Your task to perform on an android device: show emergency info Image 0: 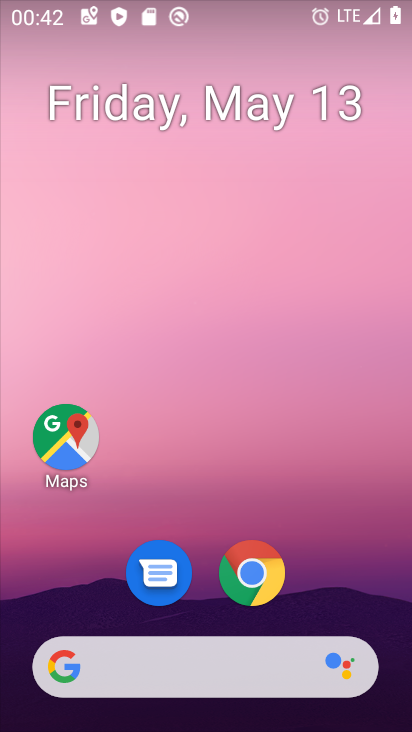
Step 0: drag from (189, 597) to (269, 74)
Your task to perform on an android device: show emergency info Image 1: 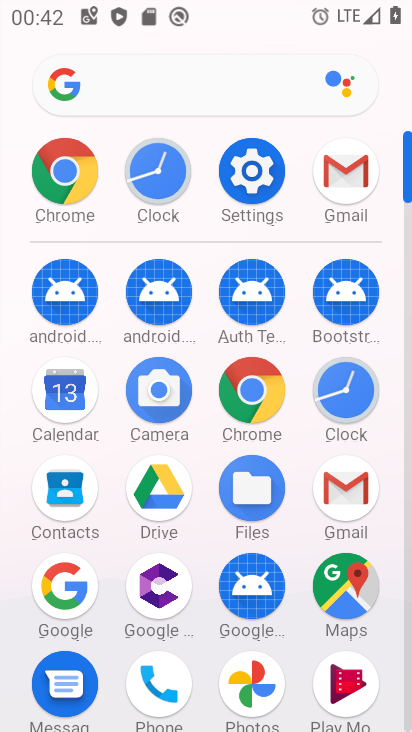
Step 1: click (261, 180)
Your task to perform on an android device: show emergency info Image 2: 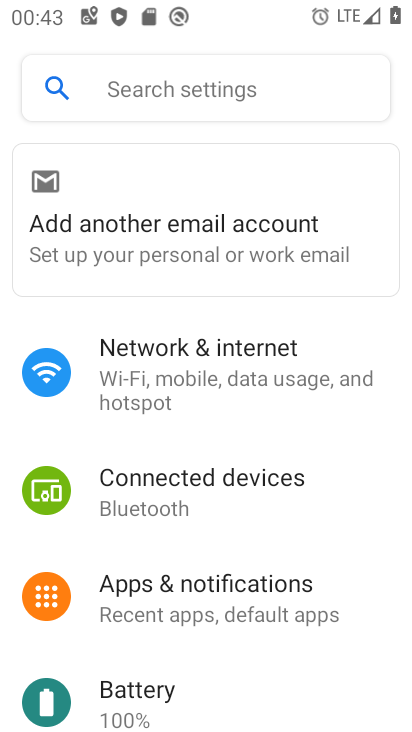
Step 2: drag from (193, 653) to (175, 109)
Your task to perform on an android device: show emergency info Image 3: 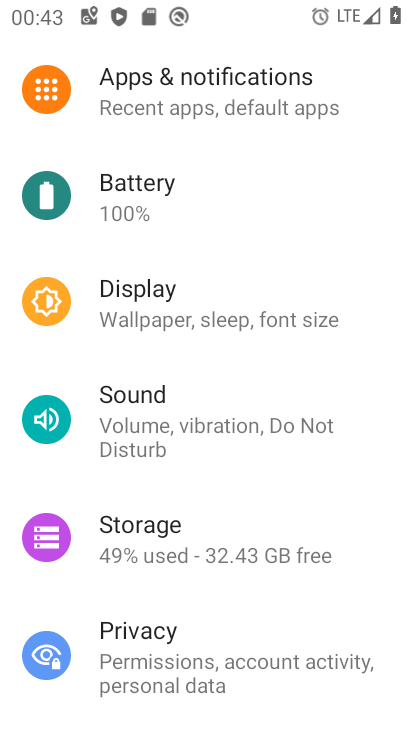
Step 3: drag from (215, 673) to (184, 98)
Your task to perform on an android device: show emergency info Image 4: 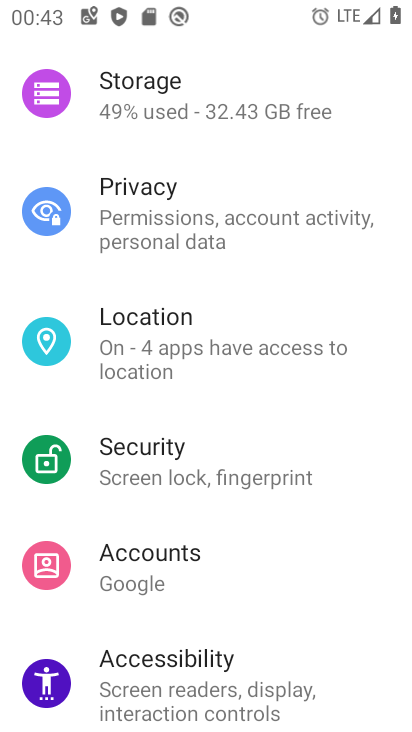
Step 4: drag from (185, 644) to (165, 8)
Your task to perform on an android device: show emergency info Image 5: 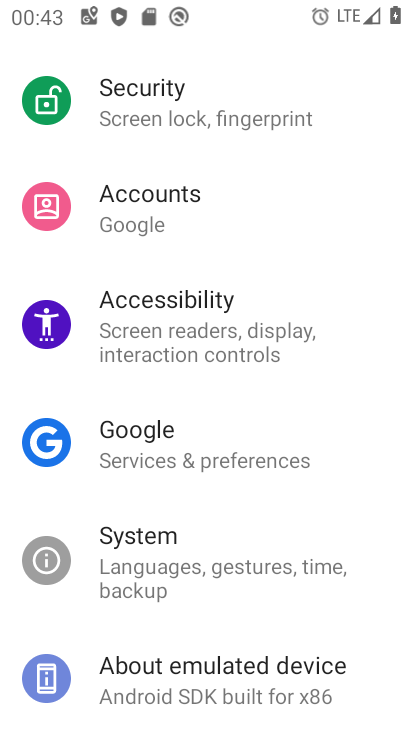
Step 5: drag from (98, 665) to (183, 177)
Your task to perform on an android device: show emergency info Image 6: 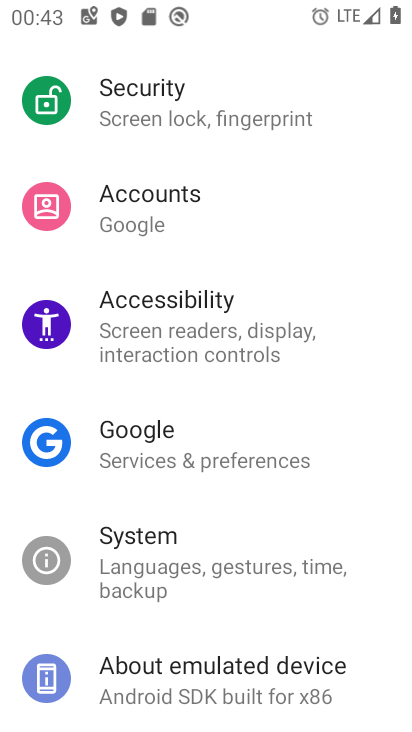
Step 6: click (95, 699)
Your task to perform on an android device: show emergency info Image 7: 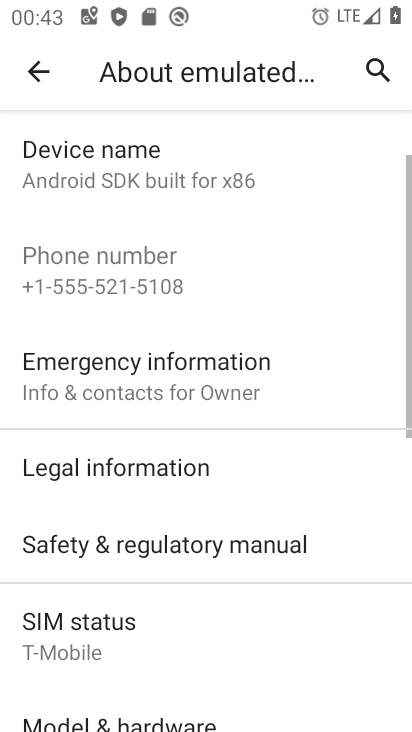
Step 7: click (201, 383)
Your task to perform on an android device: show emergency info Image 8: 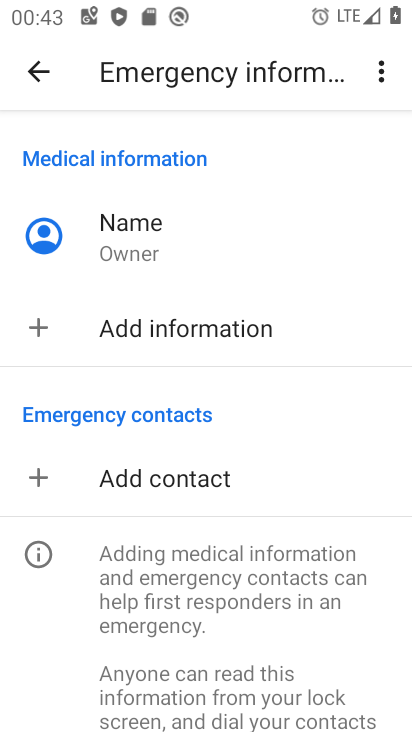
Step 8: task complete